Your task to perform on an android device: turn vacation reply on in the gmail app Image 0: 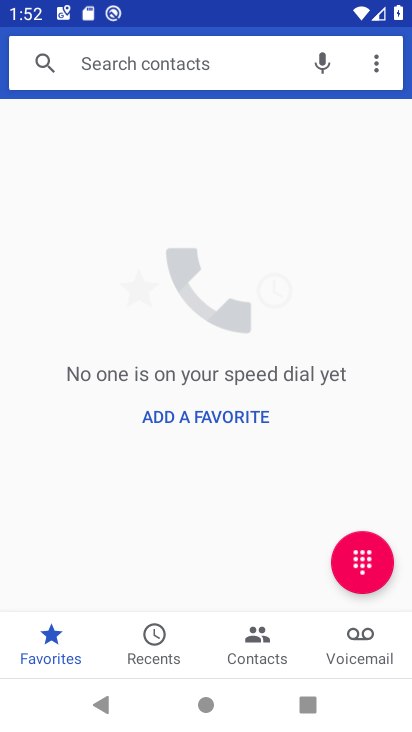
Step 0: press home button
Your task to perform on an android device: turn vacation reply on in the gmail app Image 1: 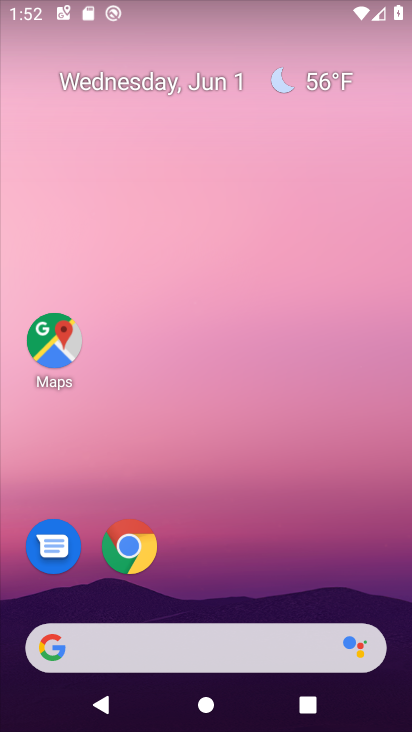
Step 1: drag from (161, 717) to (253, 133)
Your task to perform on an android device: turn vacation reply on in the gmail app Image 2: 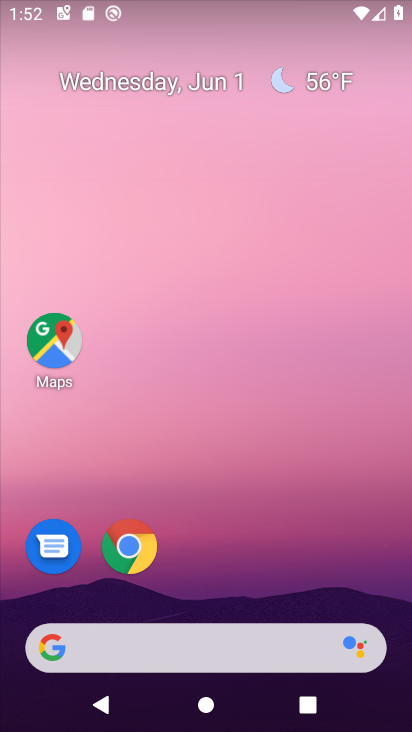
Step 2: drag from (148, 718) to (170, 33)
Your task to perform on an android device: turn vacation reply on in the gmail app Image 3: 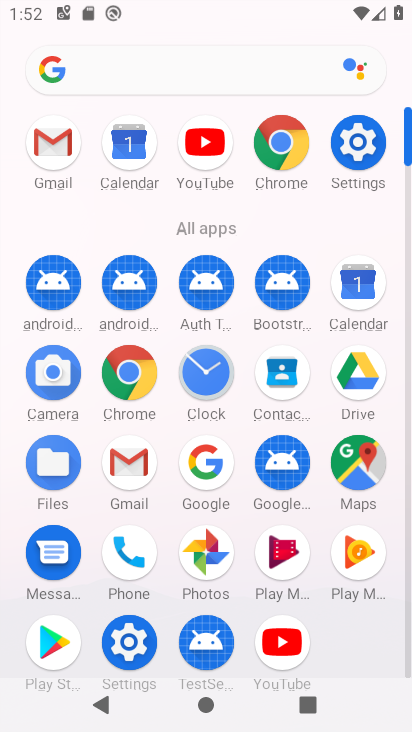
Step 3: click (132, 480)
Your task to perform on an android device: turn vacation reply on in the gmail app Image 4: 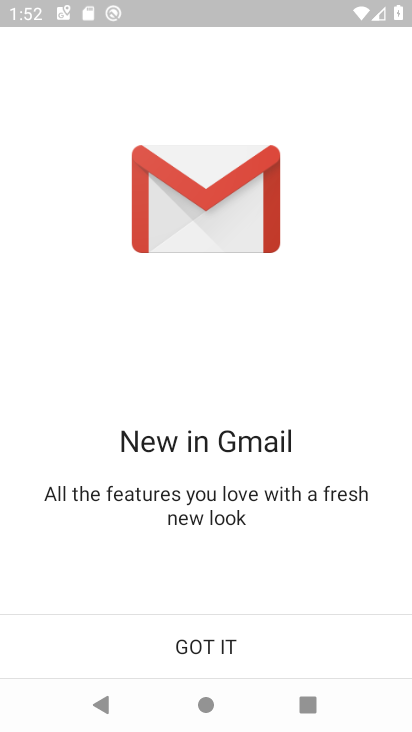
Step 4: click (224, 647)
Your task to perform on an android device: turn vacation reply on in the gmail app Image 5: 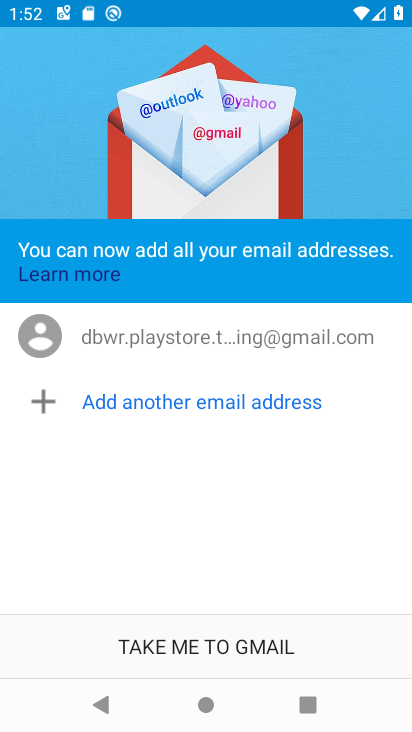
Step 5: click (224, 647)
Your task to perform on an android device: turn vacation reply on in the gmail app Image 6: 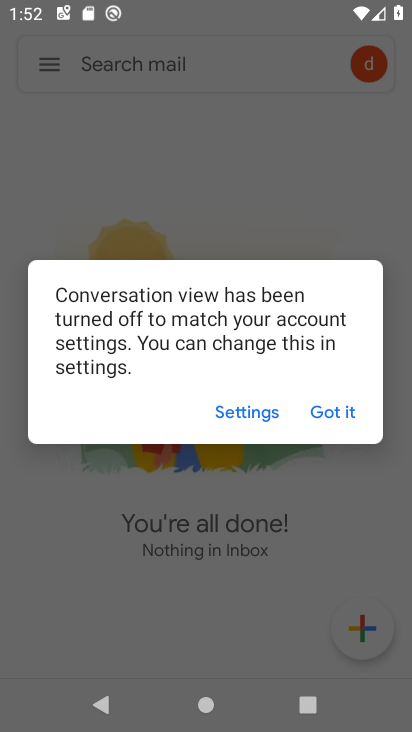
Step 6: click (353, 416)
Your task to perform on an android device: turn vacation reply on in the gmail app Image 7: 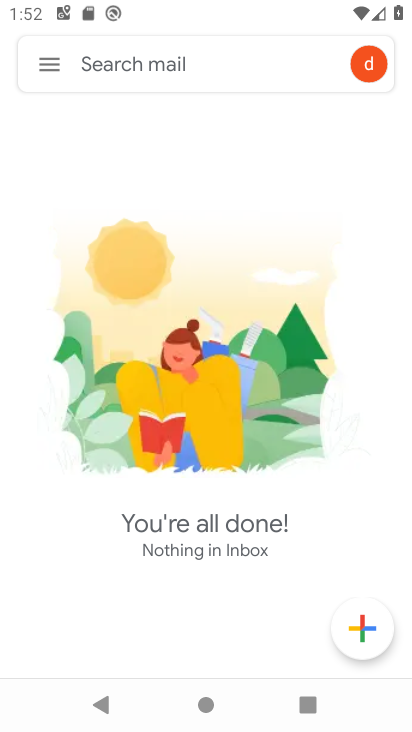
Step 7: click (51, 64)
Your task to perform on an android device: turn vacation reply on in the gmail app Image 8: 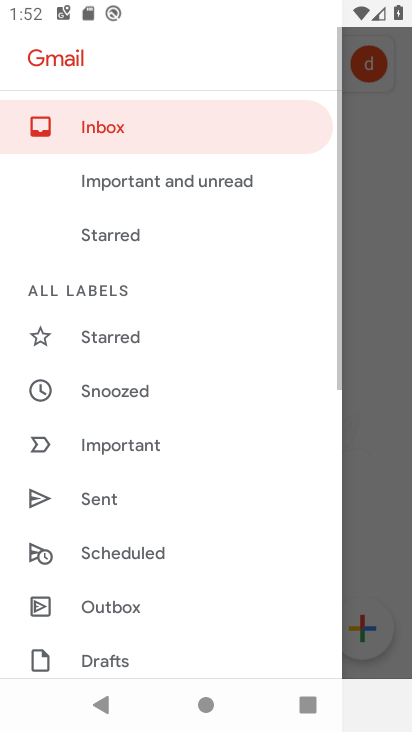
Step 8: drag from (132, 653) to (133, 219)
Your task to perform on an android device: turn vacation reply on in the gmail app Image 9: 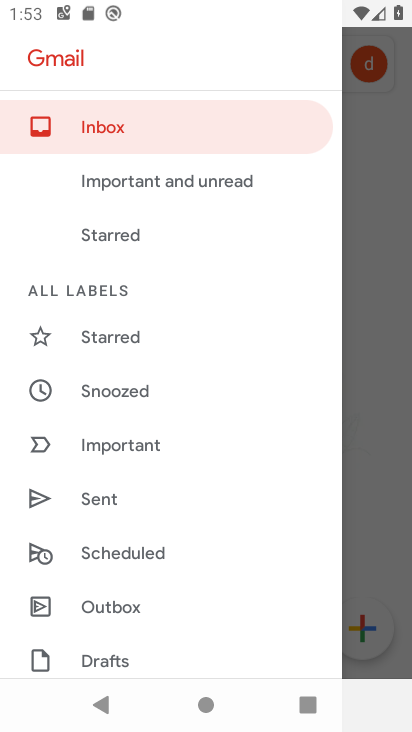
Step 9: drag from (168, 619) to (163, 163)
Your task to perform on an android device: turn vacation reply on in the gmail app Image 10: 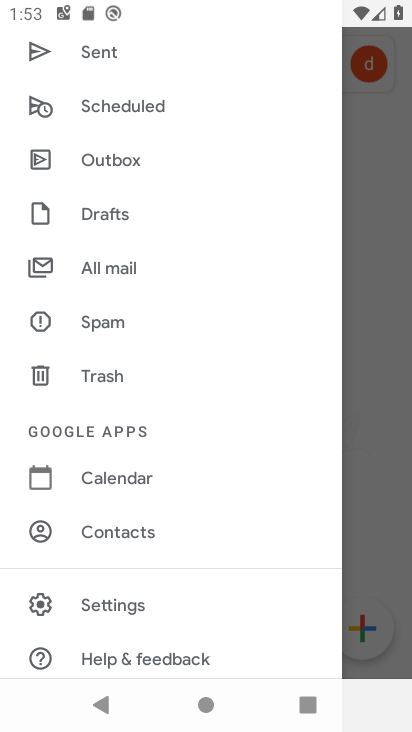
Step 10: click (92, 598)
Your task to perform on an android device: turn vacation reply on in the gmail app Image 11: 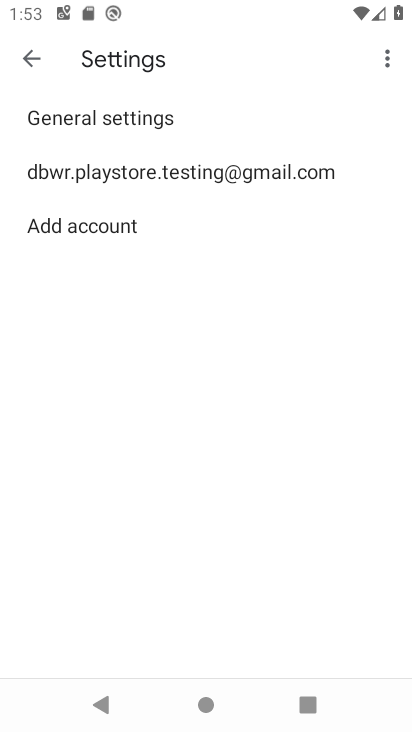
Step 11: click (149, 177)
Your task to perform on an android device: turn vacation reply on in the gmail app Image 12: 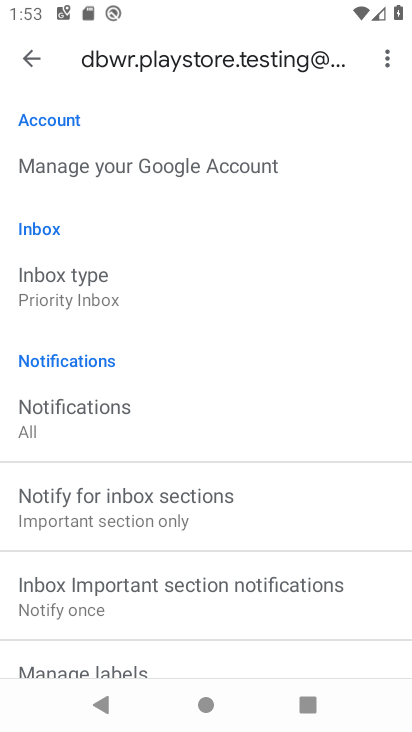
Step 12: drag from (172, 630) to (139, 286)
Your task to perform on an android device: turn vacation reply on in the gmail app Image 13: 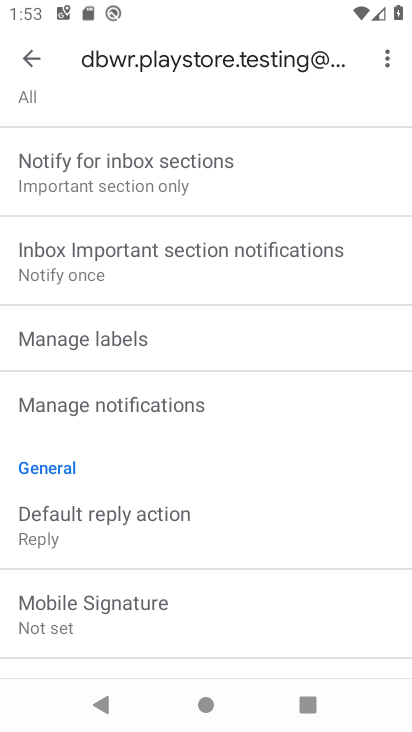
Step 13: drag from (216, 566) to (235, 347)
Your task to perform on an android device: turn vacation reply on in the gmail app Image 14: 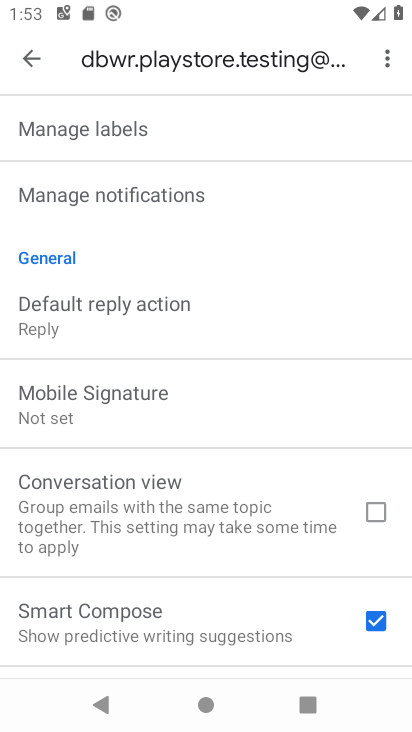
Step 14: drag from (185, 630) to (254, 193)
Your task to perform on an android device: turn vacation reply on in the gmail app Image 15: 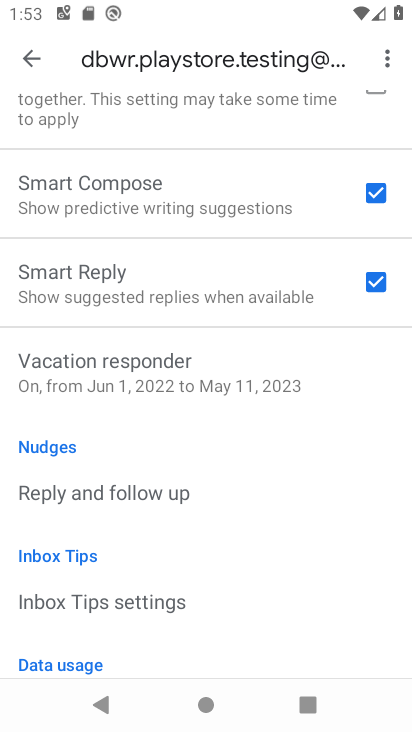
Step 15: click (149, 392)
Your task to perform on an android device: turn vacation reply on in the gmail app Image 16: 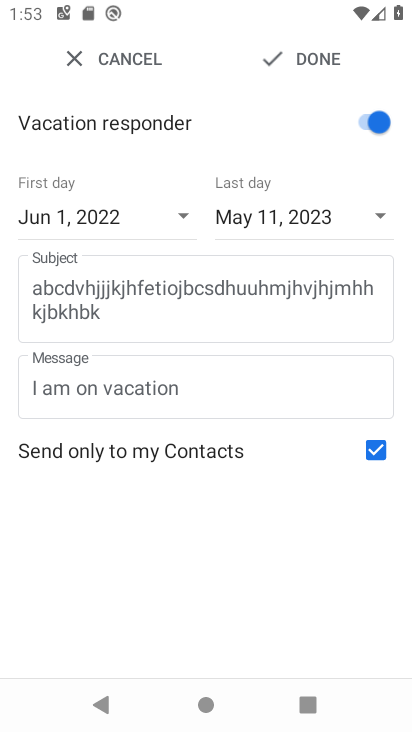
Step 16: click (304, 64)
Your task to perform on an android device: turn vacation reply on in the gmail app Image 17: 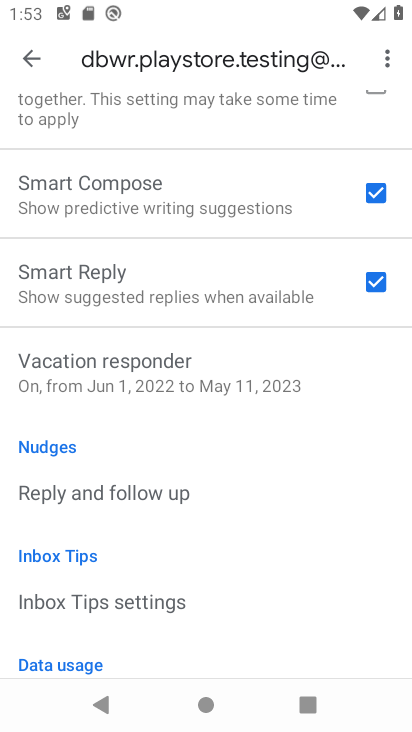
Step 17: task complete